Your task to perform on an android device: choose inbox layout in the gmail app Image 0: 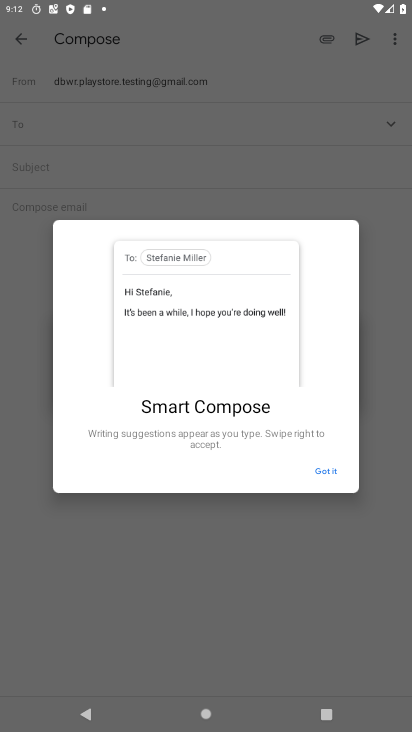
Step 0: press home button
Your task to perform on an android device: choose inbox layout in the gmail app Image 1: 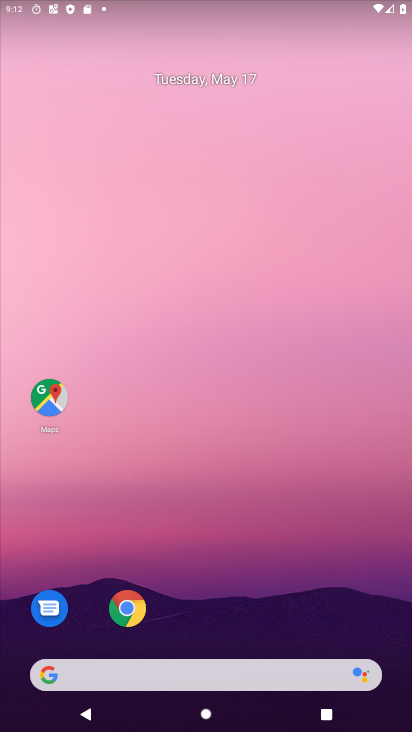
Step 1: drag from (368, 586) to (333, 123)
Your task to perform on an android device: choose inbox layout in the gmail app Image 2: 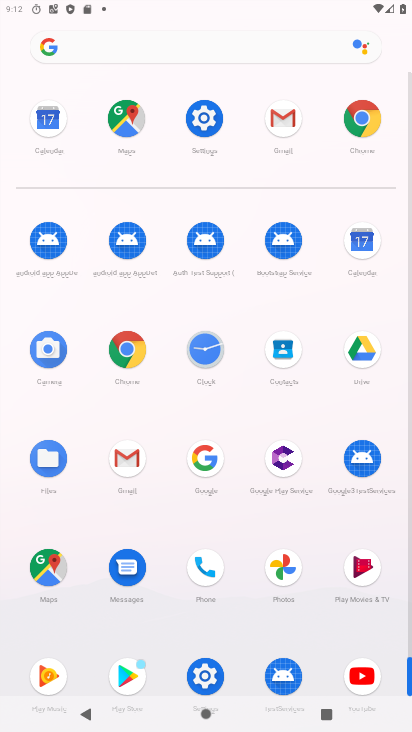
Step 2: click (133, 465)
Your task to perform on an android device: choose inbox layout in the gmail app Image 3: 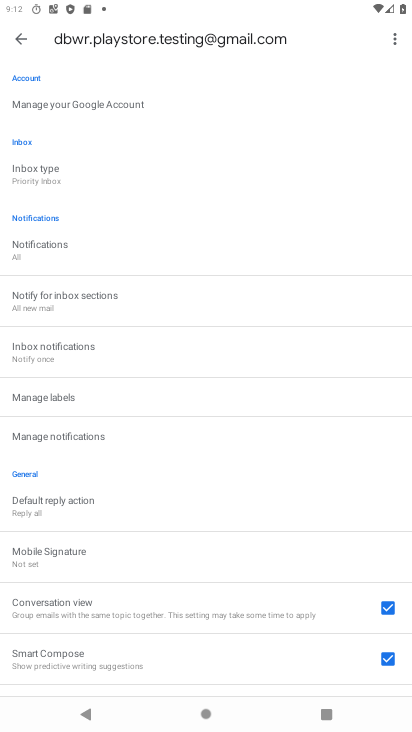
Step 3: drag from (165, 500) to (189, 277)
Your task to perform on an android device: choose inbox layout in the gmail app Image 4: 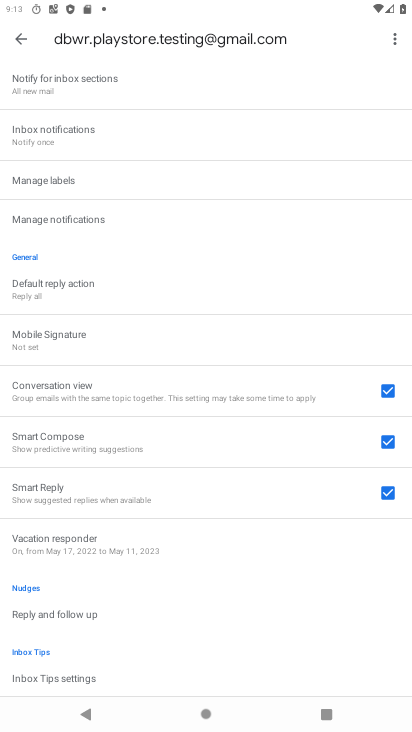
Step 4: drag from (63, 144) to (68, 536)
Your task to perform on an android device: choose inbox layout in the gmail app Image 5: 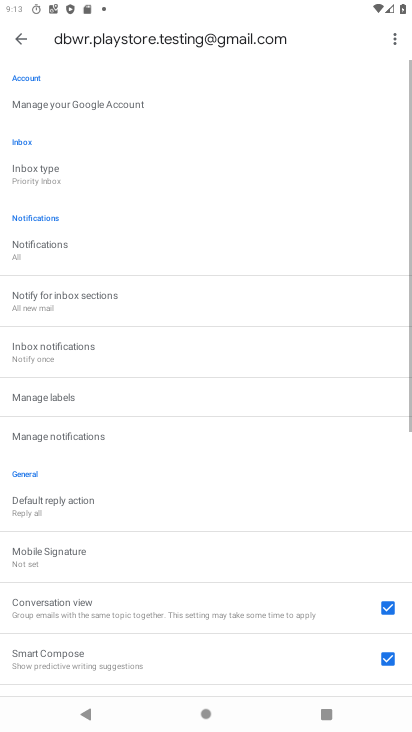
Step 5: click (56, 159)
Your task to perform on an android device: choose inbox layout in the gmail app Image 6: 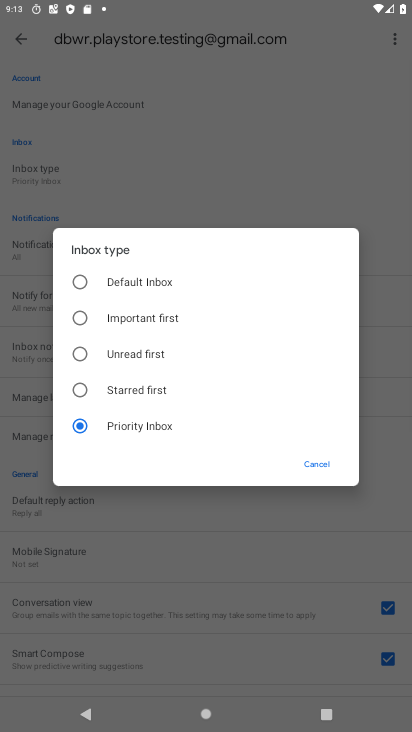
Step 6: click (84, 392)
Your task to perform on an android device: choose inbox layout in the gmail app Image 7: 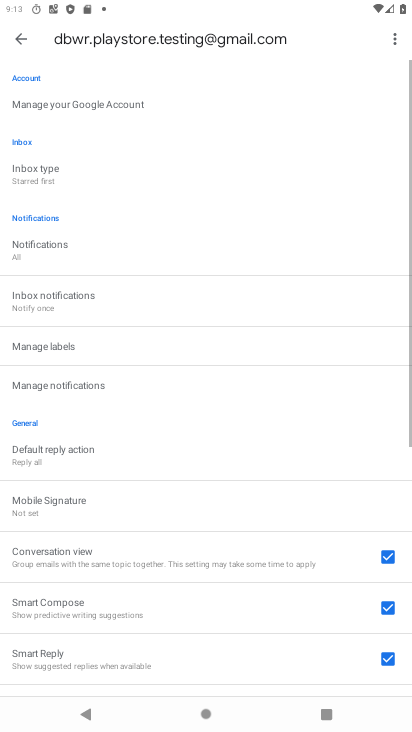
Step 7: task complete